Your task to perform on an android device: uninstall "Gmail" Image 0: 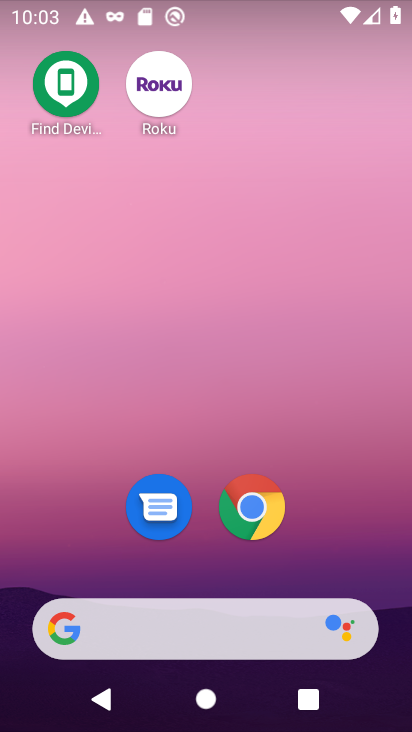
Step 0: drag from (179, 627) to (203, 217)
Your task to perform on an android device: uninstall "Gmail" Image 1: 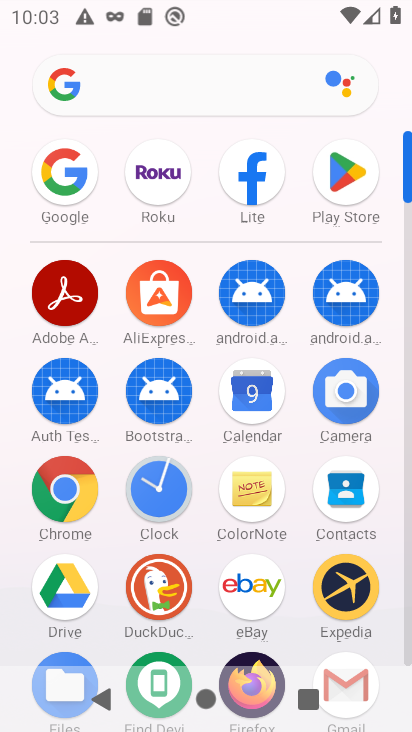
Step 1: click (341, 179)
Your task to perform on an android device: uninstall "Gmail" Image 2: 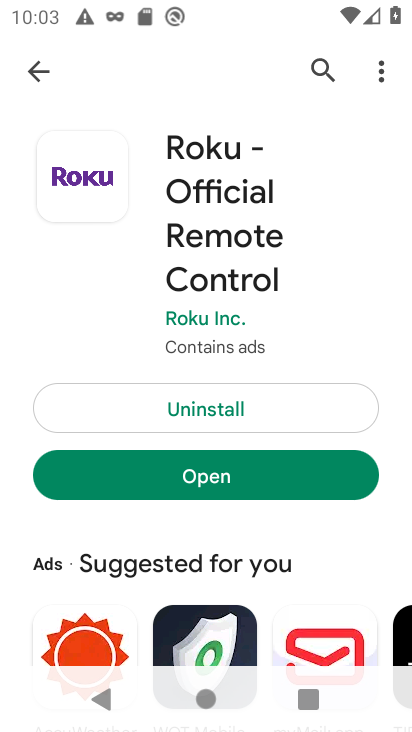
Step 2: click (312, 77)
Your task to perform on an android device: uninstall "Gmail" Image 3: 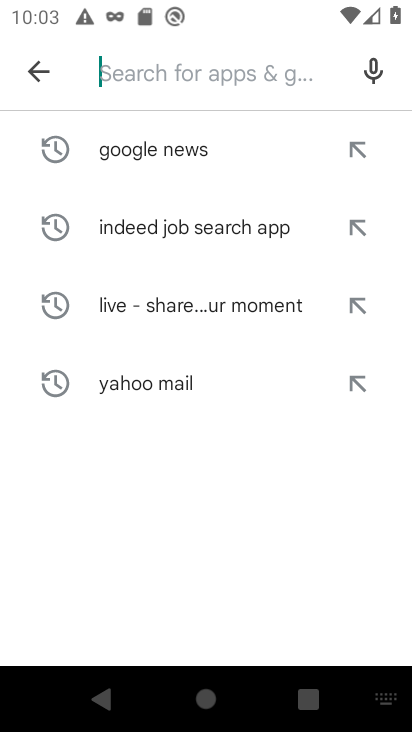
Step 3: type "Gmail"
Your task to perform on an android device: uninstall "Gmail" Image 4: 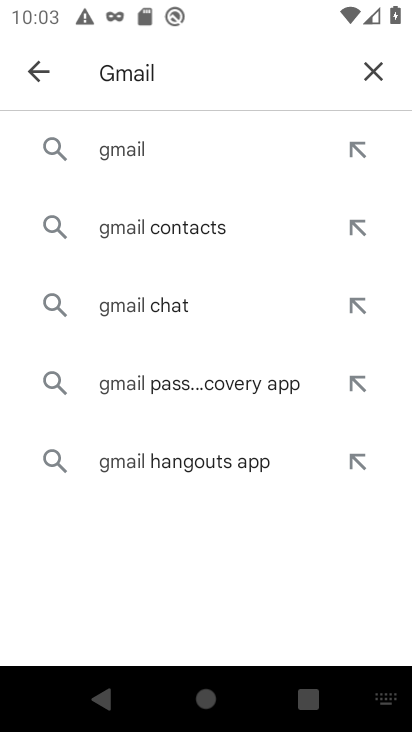
Step 4: click (136, 147)
Your task to perform on an android device: uninstall "Gmail" Image 5: 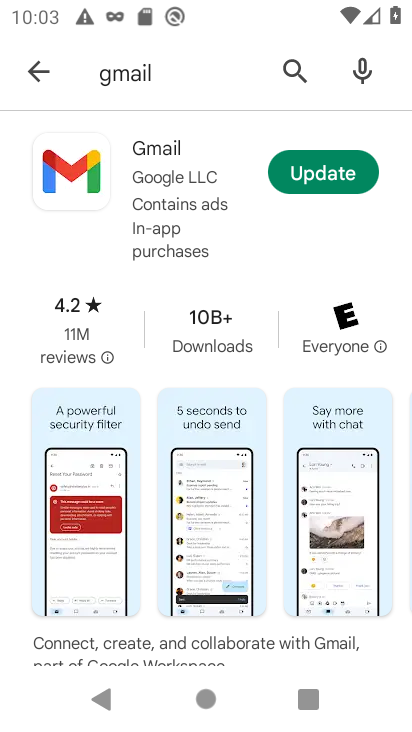
Step 5: click (162, 163)
Your task to perform on an android device: uninstall "Gmail" Image 6: 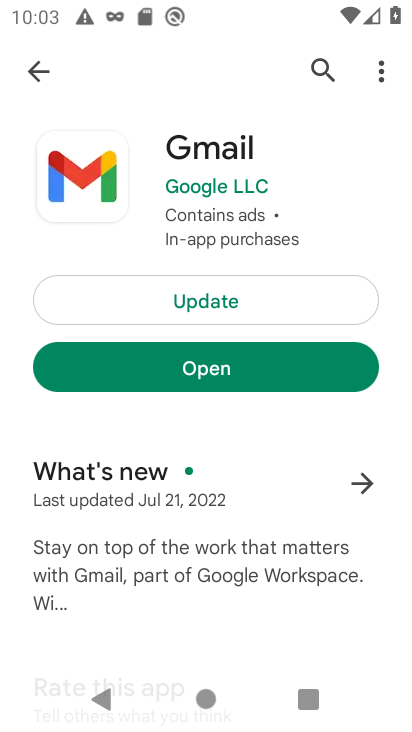
Step 6: click (217, 290)
Your task to perform on an android device: uninstall "Gmail" Image 7: 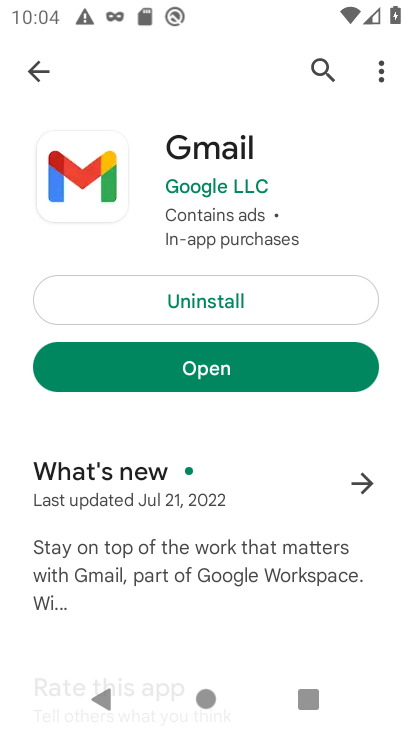
Step 7: click (214, 299)
Your task to perform on an android device: uninstall "Gmail" Image 8: 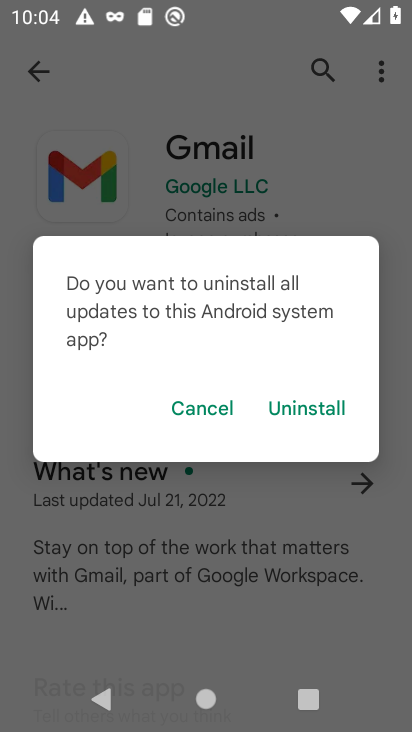
Step 8: click (283, 407)
Your task to perform on an android device: uninstall "Gmail" Image 9: 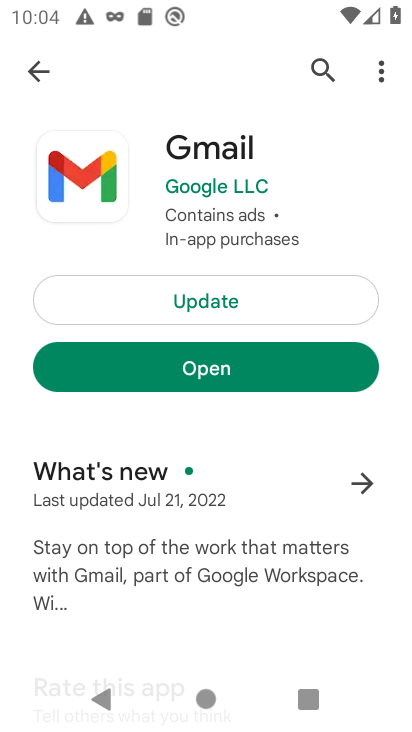
Step 9: task complete